Your task to perform on an android device: Check the news Image 0: 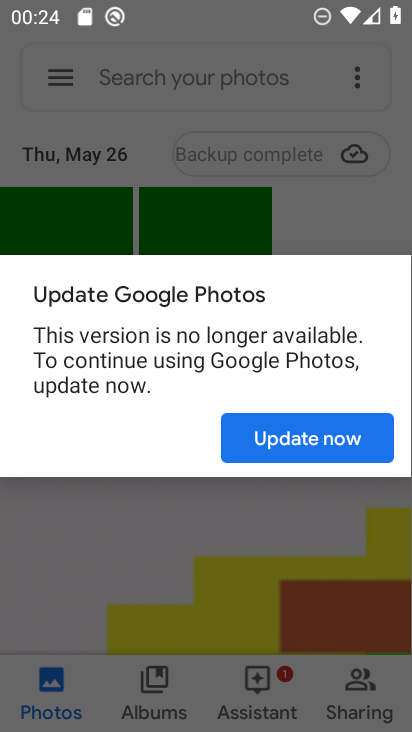
Step 0: press home button
Your task to perform on an android device: Check the news Image 1: 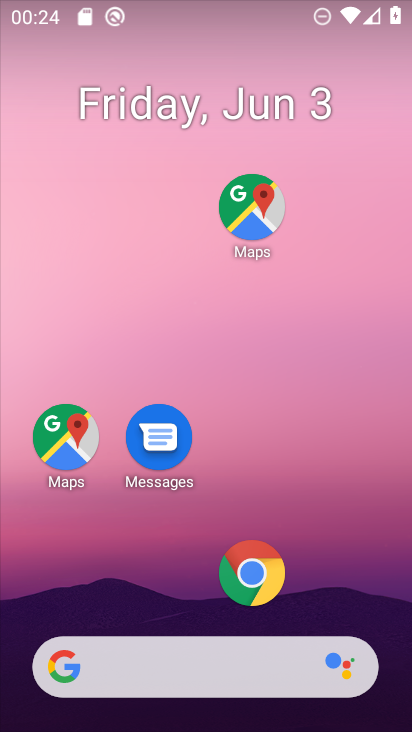
Step 1: drag from (167, 561) to (181, 241)
Your task to perform on an android device: Check the news Image 2: 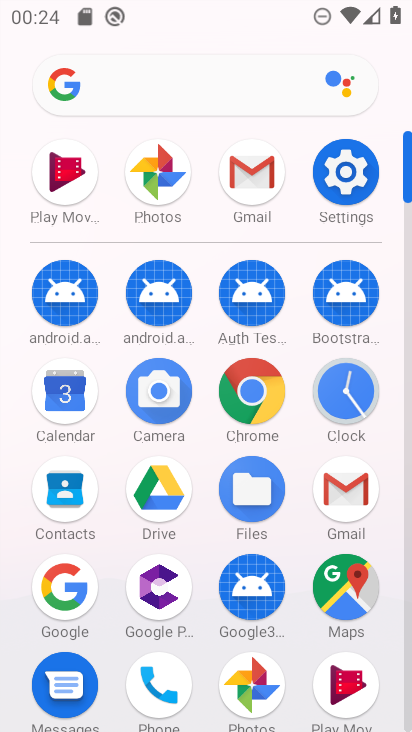
Step 2: click (65, 593)
Your task to perform on an android device: Check the news Image 3: 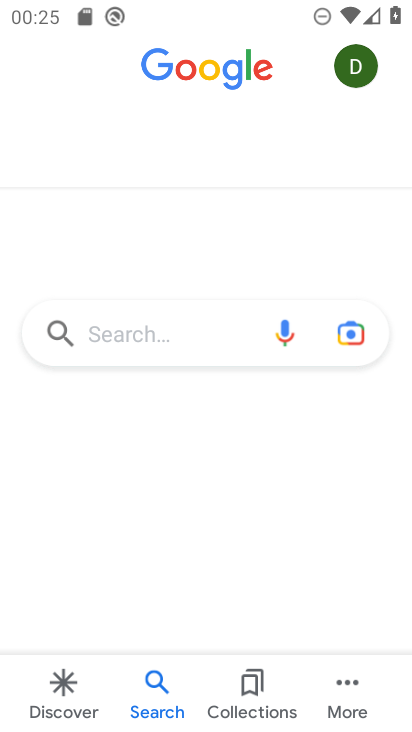
Step 3: click (141, 321)
Your task to perform on an android device: Check the news Image 4: 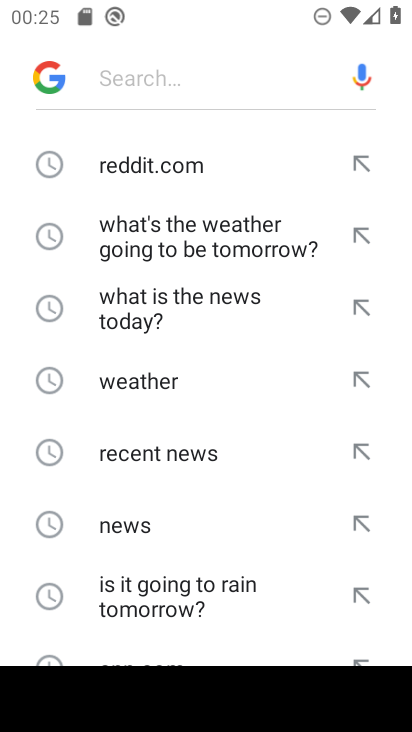
Step 4: click (138, 518)
Your task to perform on an android device: Check the news Image 5: 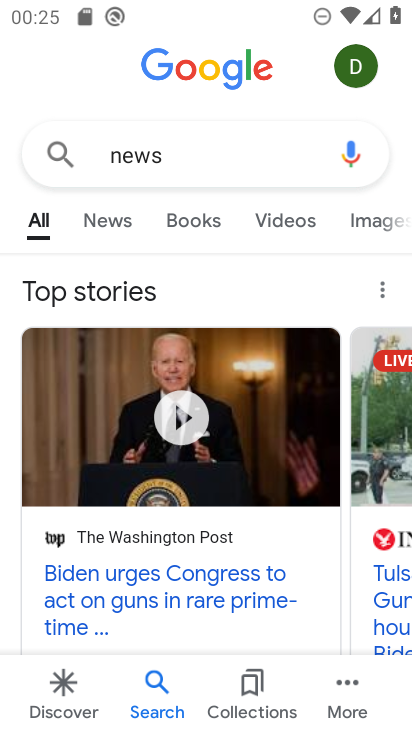
Step 5: click (95, 226)
Your task to perform on an android device: Check the news Image 6: 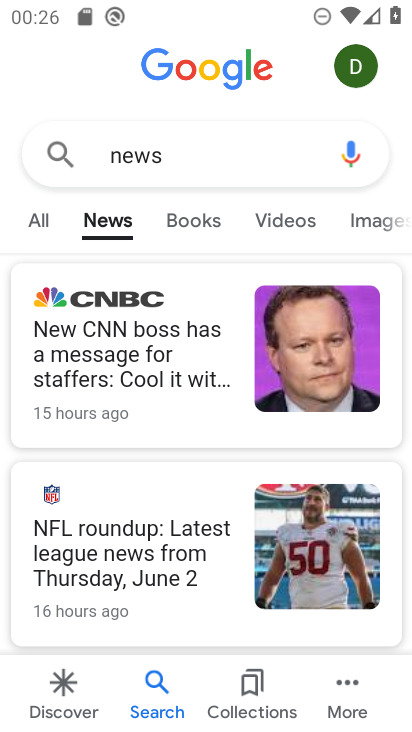
Step 6: task complete